Your task to perform on an android device: Go to location settings Image 0: 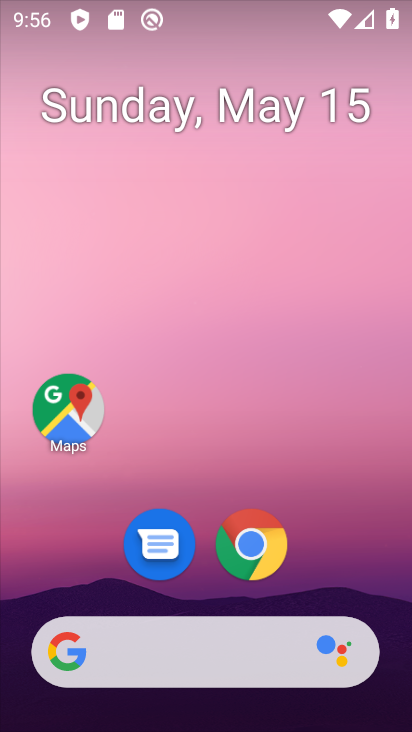
Step 0: drag from (70, 621) to (185, 201)
Your task to perform on an android device: Go to location settings Image 1: 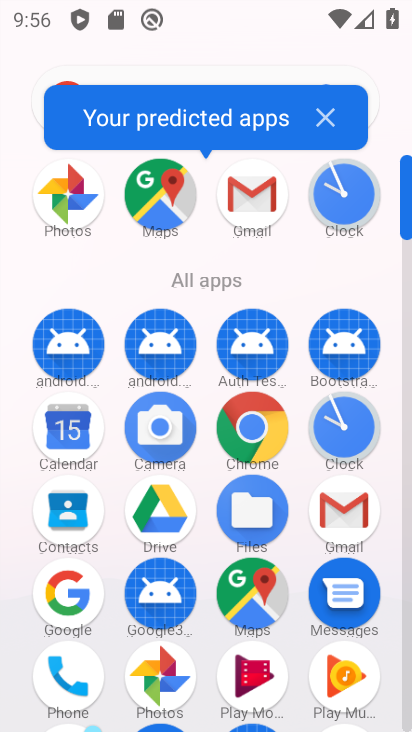
Step 1: drag from (159, 647) to (217, 433)
Your task to perform on an android device: Go to location settings Image 2: 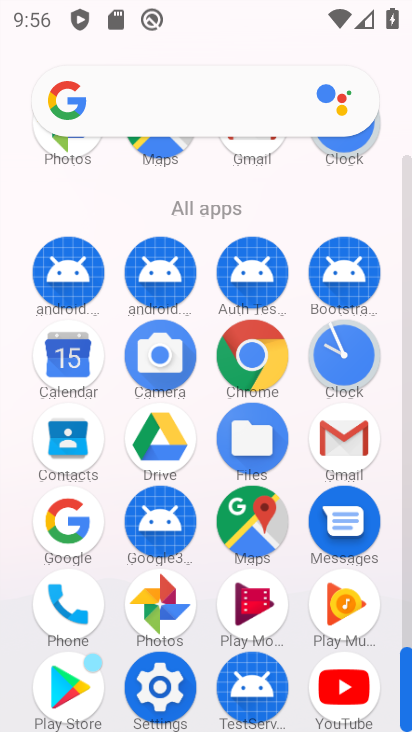
Step 2: click (165, 678)
Your task to perform on an android device: Go to location settings Image 3: 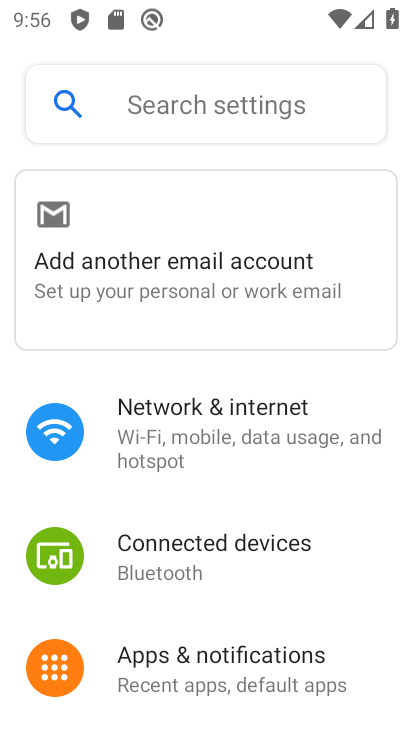
Step 3: drag from (249, 544) to (323, 307)
Your task to perform on an android device: Go to location settings Image 4: 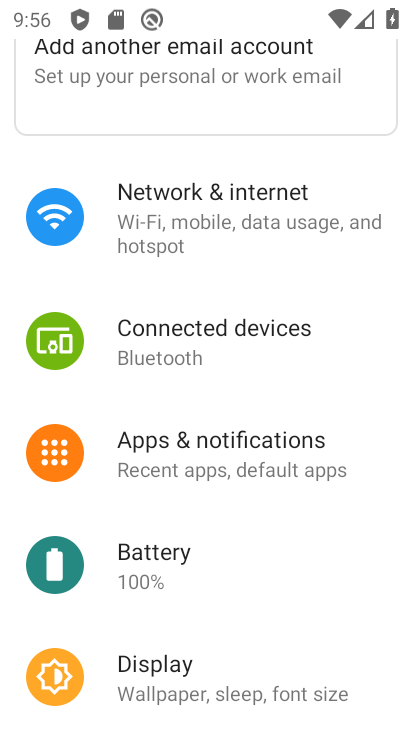
Step 4: drag from (224, 633) to (322, 394)
Your task to perform on an android device: Go to location settings Image 5: 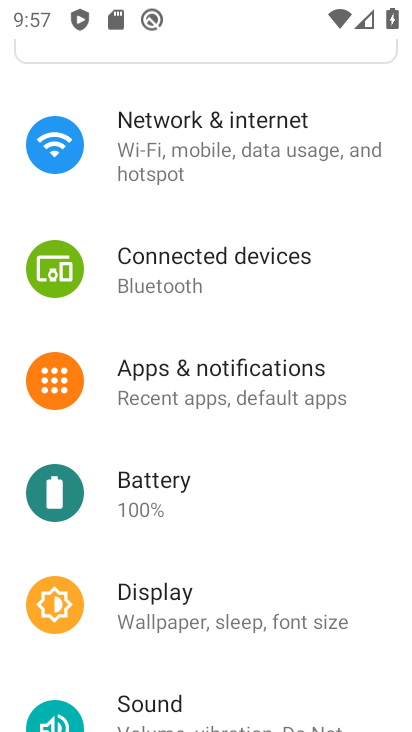
Step 5: drag from (219, 610) to (310, 223)
Your task to perform on an android device: Go to location settings Image 6: 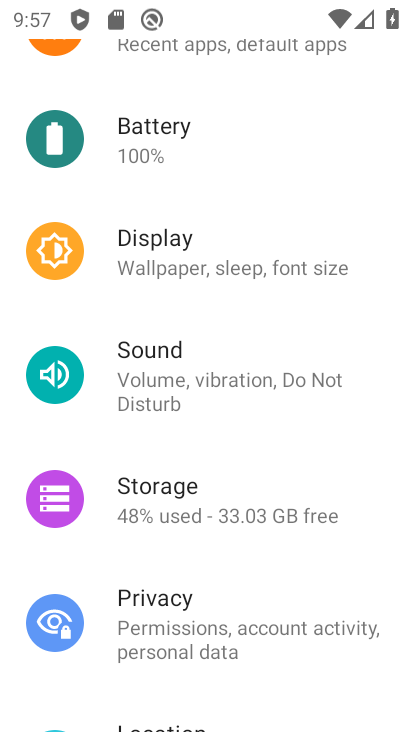
Step 6: drag from (219, 665) to (281, 304)
Your task to perform on an android device: Go to location settings Image 7: 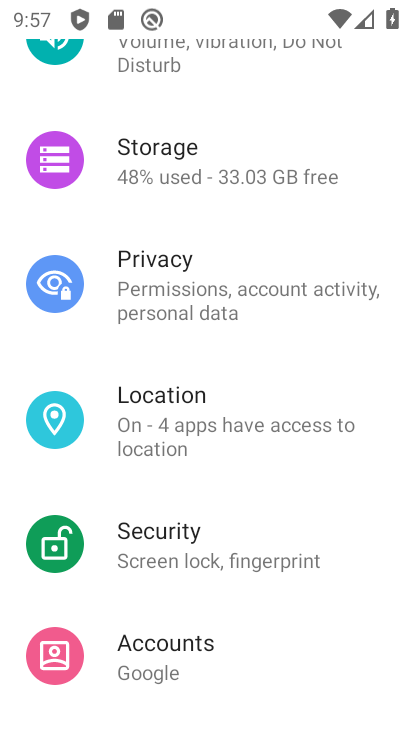
Step 7: click (198, 438)
Your task to perform on an android device: Go to location settings Image 8: 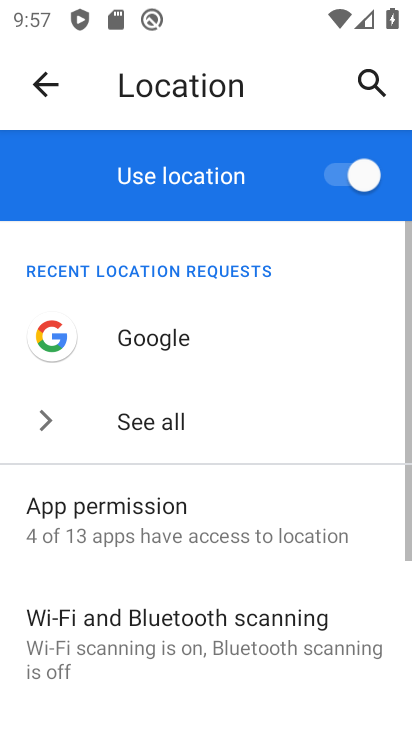
Step 8: task complete